Your task to perform on an android device: Open the web browser Image 0: 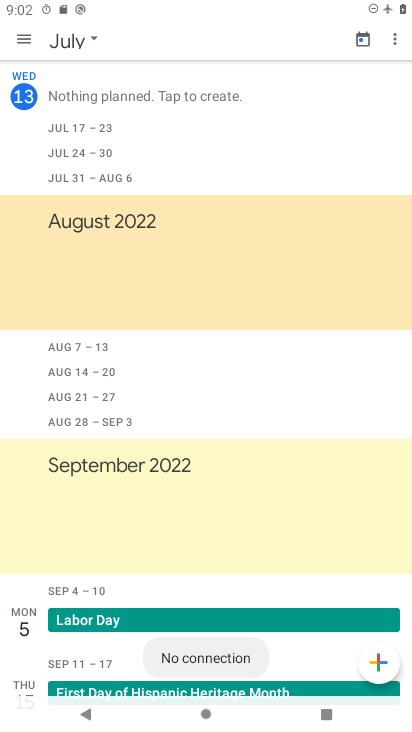
Step 0: drag from (229, 683) to (173, 302)
Your task to perform on an android device: Open the web browser Image 1: 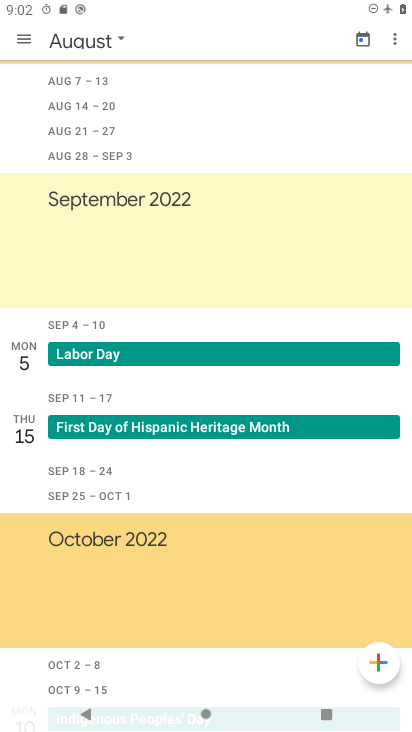
Step 1: press back button
Your task to perform on an android device: Open the web browser Image 2: 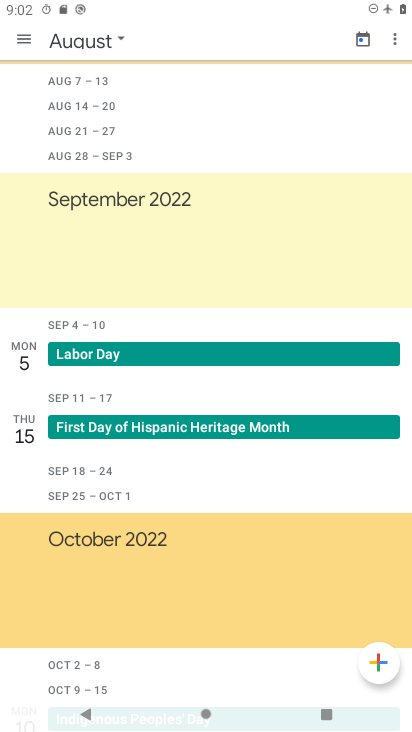
Step 2: press back button
Your task to perform on an android device: Open the web browser Image 3: 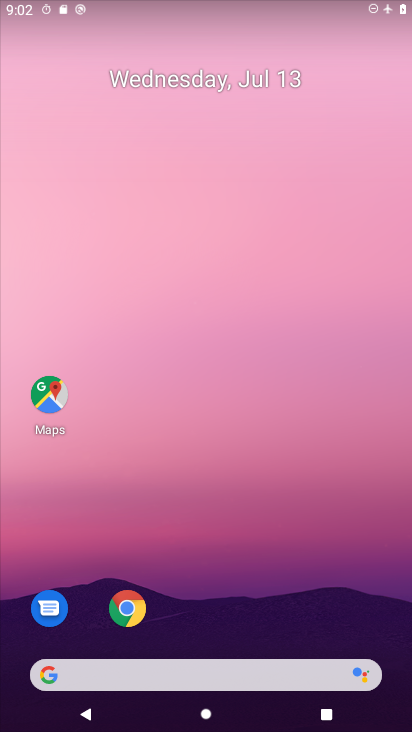
Step 3: drag from (267, 710) to (228, 450)
Your task to perform on an android device: Open the web browser Image 4: 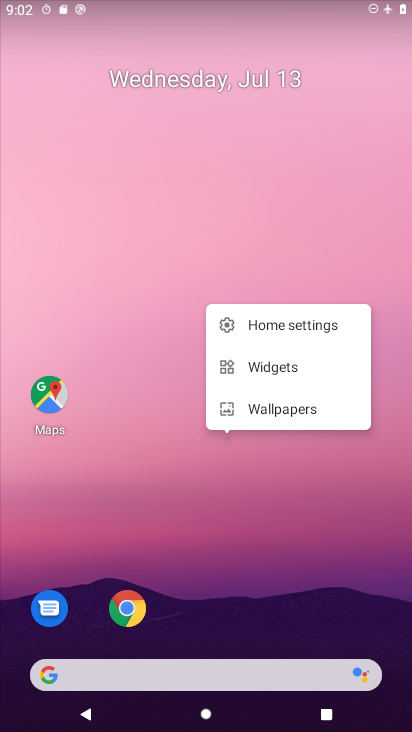
Step 4: drag from (263, 585) to (220, 285)
Your task to perform on an android device: Open the web browser Image 5: 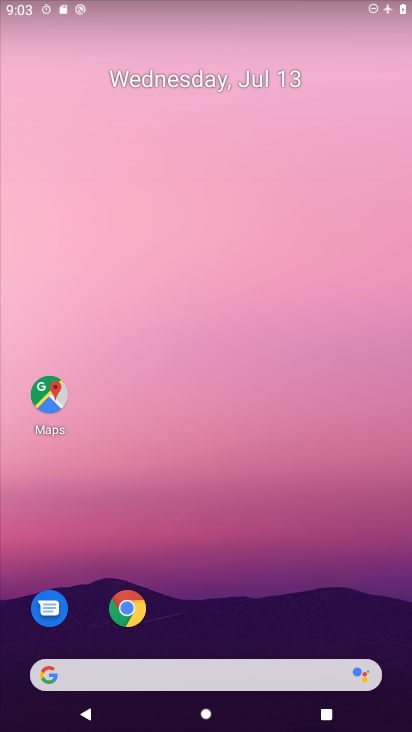
Step 5: drag from (265, 688) to (230, 191)
Your task to perform on an android device: Open the web browser Image 6: 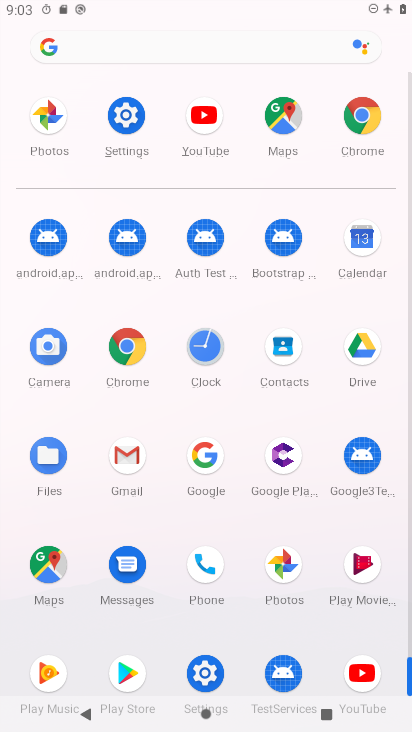
Step 6: click (362, 122)
Your task to perform on an android device: Open the web browser Image 7: 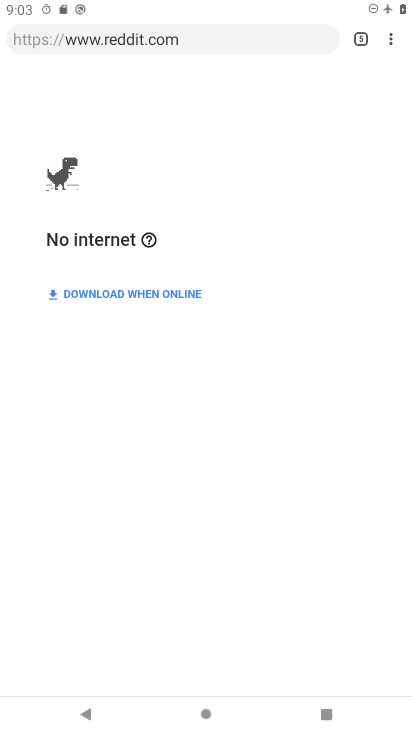
Step 7: task complete